Your task to perform on an android device: What's the weather going to be this weekend? Image 0: 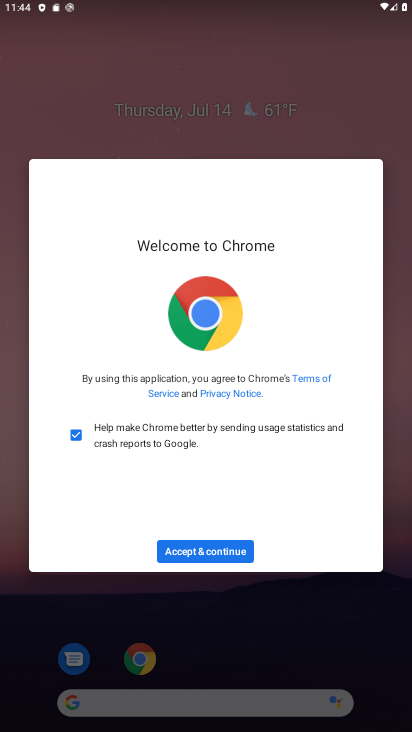
Step 0: press home button
Your task to perform on an android device: What's the weather going to be this weekend? Image 1: 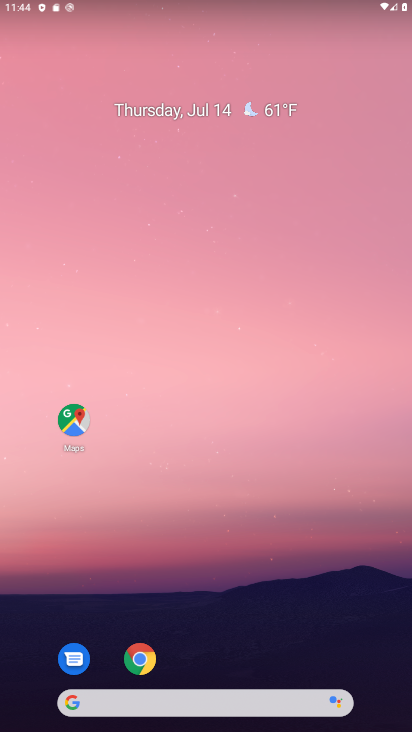
Step 1: click (132, 708)
Your task to perform on an android device: What's the weather going to be this weekend? Image 2: 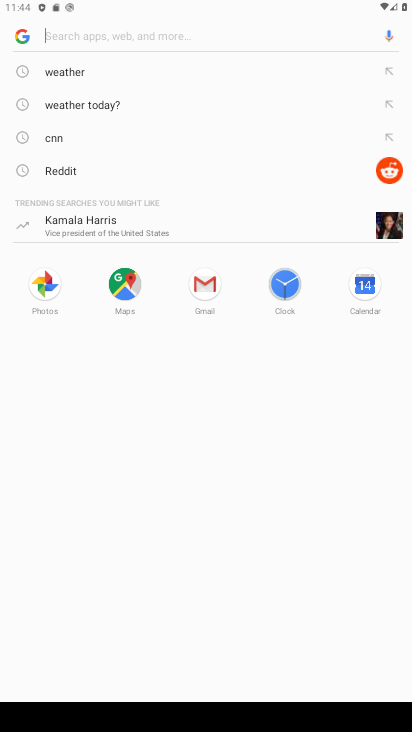
Step 2: type "what's the weather going to be this weekend ?"
Your task to perform on an android device: What's the weather going to be this weekend? Image 3: 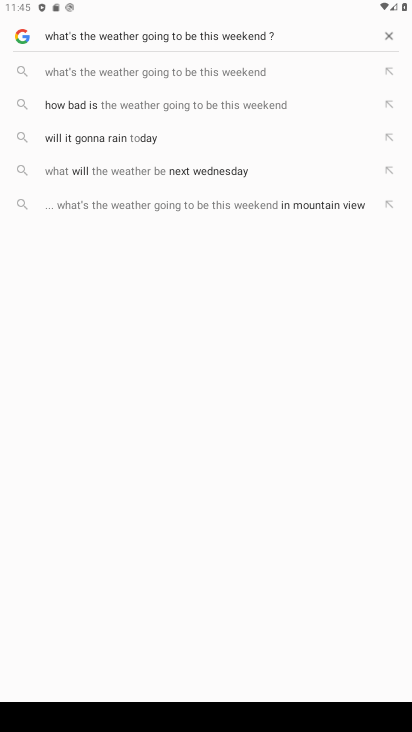
Step 3: click (188, 79)
Your task to perform on an android device: What's the weather going to be this weekend? Image 4: 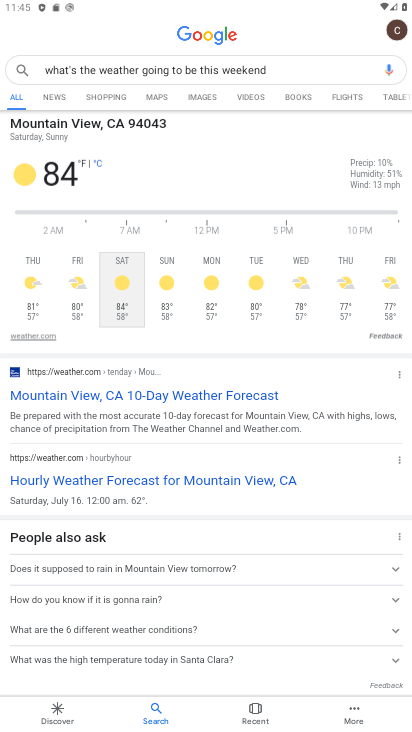
Step 4: task complete